Your task to perform on an android device: Open ESPN.com Image 0: 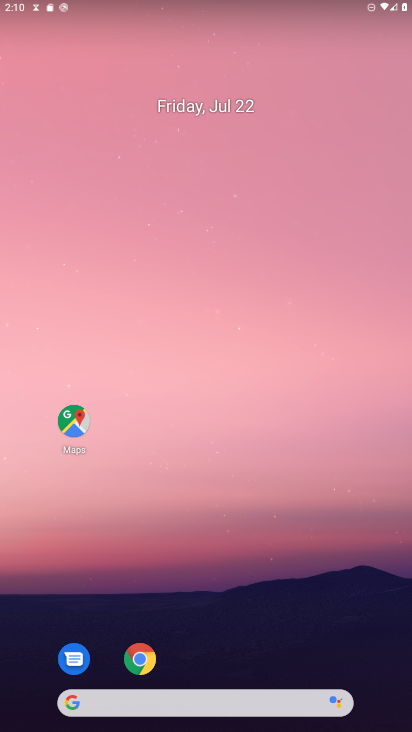
Step 0: drag from (316, 632) to (258, 27)
Your task to perform on an android device: Open ESPN.com Image 1: 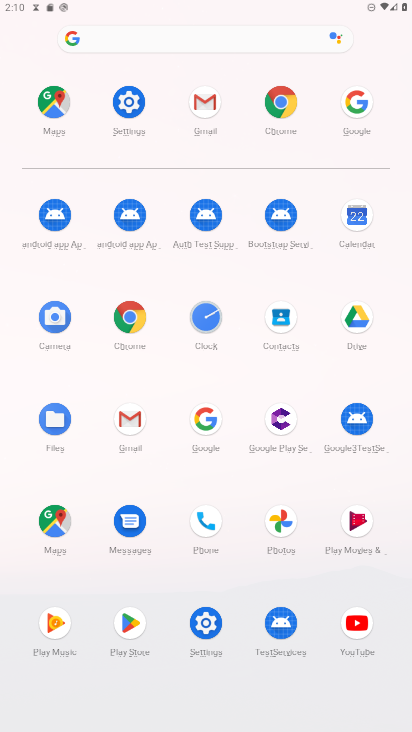
Step 1: click (275, 99)
Your task to perform on an android device: Open ESPN.com Image 2: 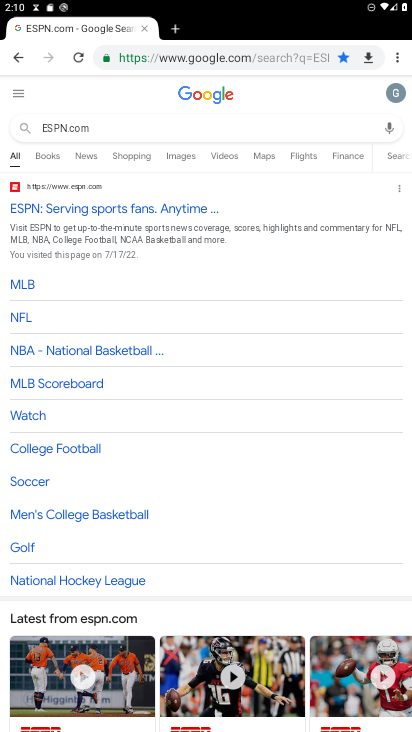
Step 2: task complete